Your task to perform on an android device: Open CNN.com Image 0: 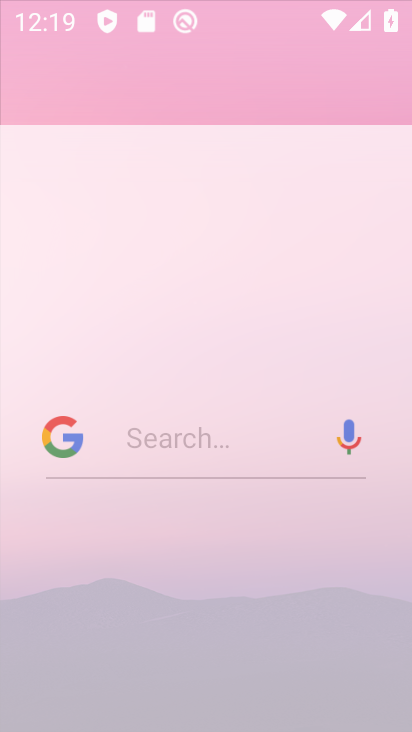
Step 0: drag from (232, 577) to (261, 250)
Your task to perform on an android device: Open CNN.com Image 1: 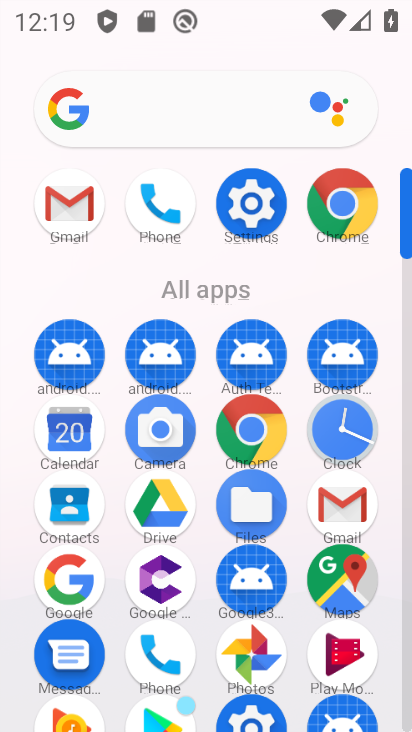
Step 1: click (344, 220)
Your task to perform on an android device: Open CNN.com Image 2: 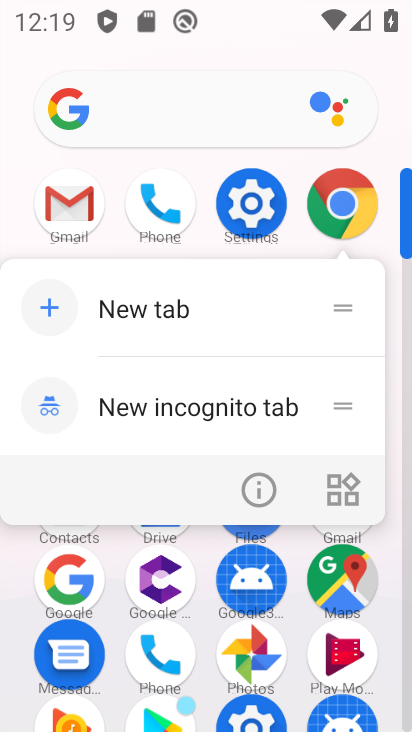
Step 2: click (343, 214)
Your task to perform on an android device: Open CNN.com Image 3: 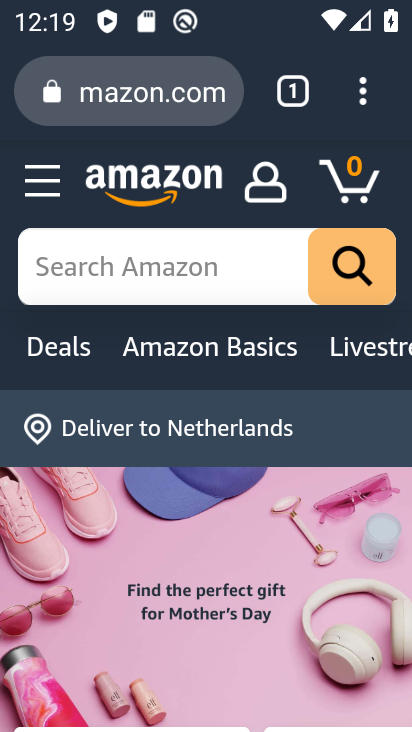
Step 3: drag from (291, 103) to (298, 355)
Your task to perform on an android device: Open CNN.com Image 4: 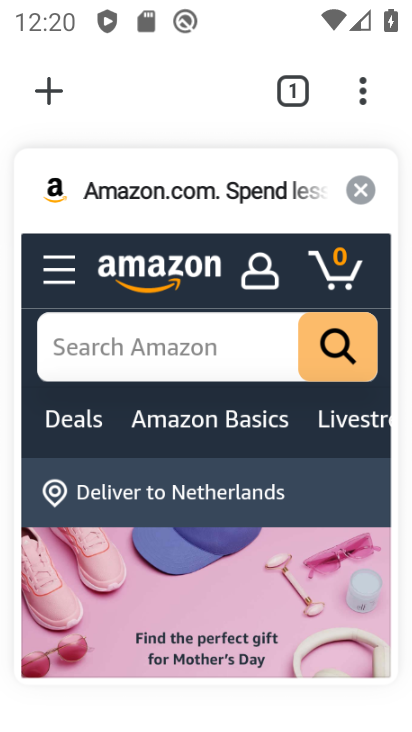
Step 4: click (48, 90)
Your task to perform on an android device: Open CNN.com Image 5: 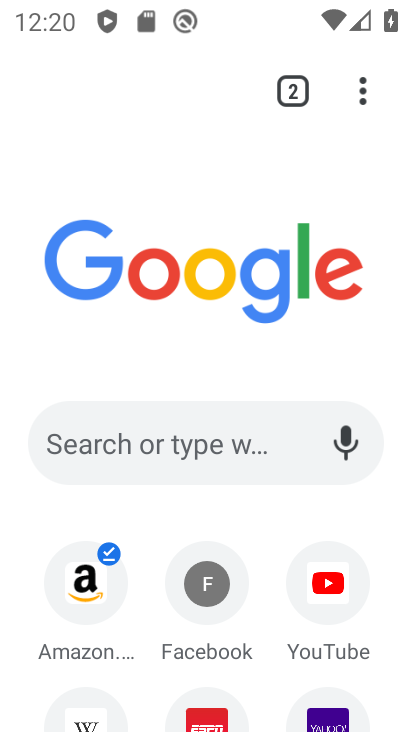
Step 5: click (209, 455)
Your task to perform on an android device: Open CNN.com Image 6: 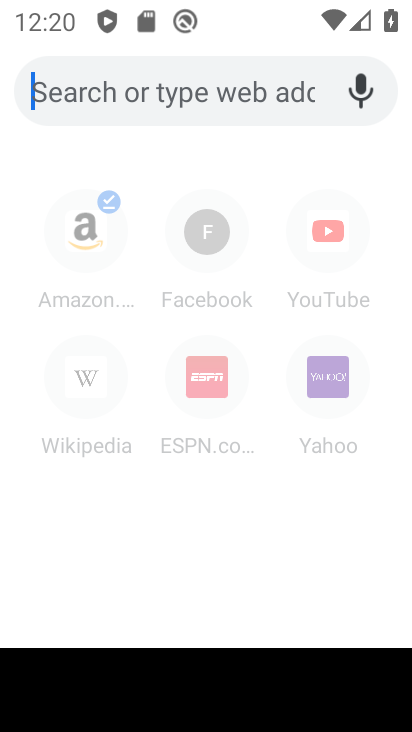
Step 6: type "cnn.com"
Your task to perform on an android device: Open CNN.com Image 7: 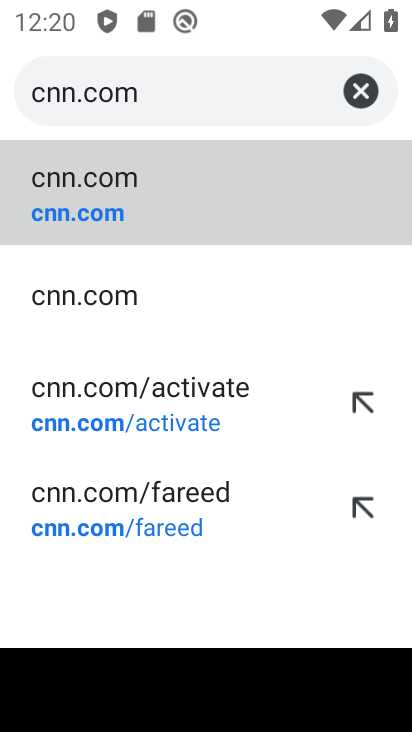
Step 7: click (197, 195)
Your task to perform on an android device: Open CNN.com Image 8: 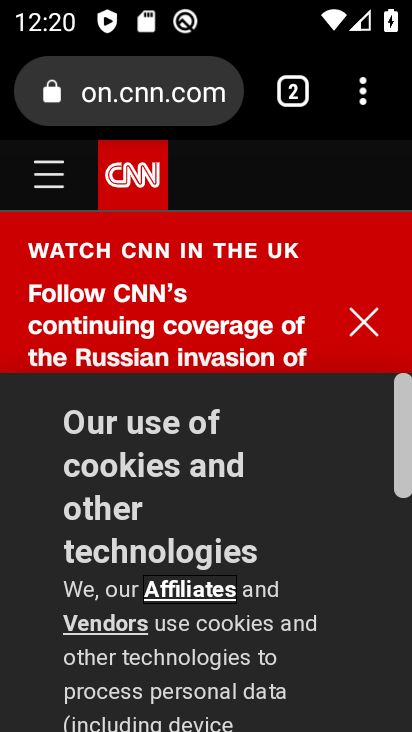
Step 8: task complete